Your task to perform on an android device: Search for pizza restaurants on Maps Image 0: 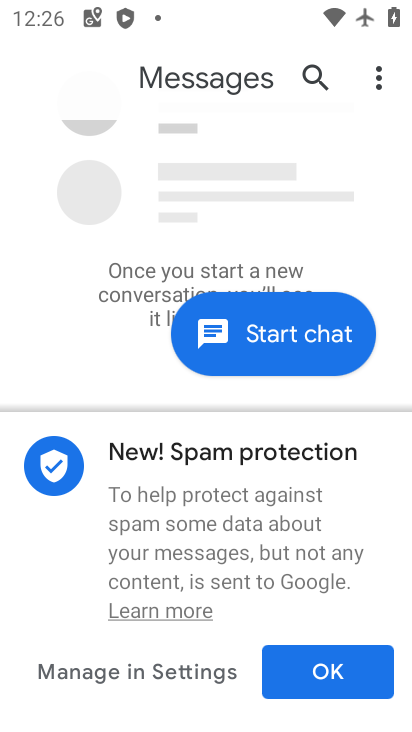
Step 0: press home button
Your task to perform on an android device: Search for pizza restaurants on Maps Image 1: 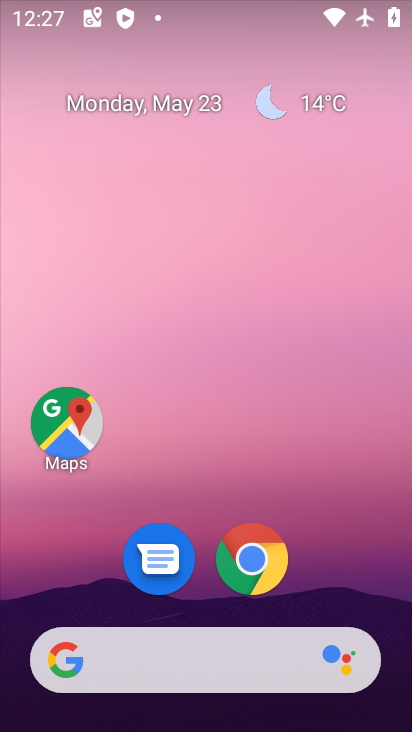
Step 1: click (69, 427)
Your task to perform on an android device: Search for pizza restaurants on Maps Image 2: 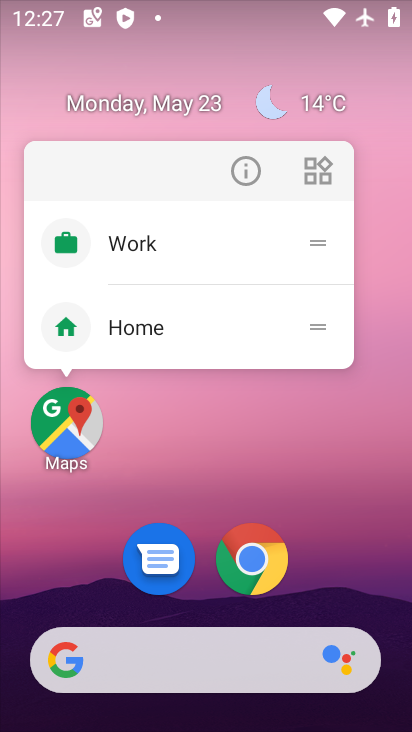
Step 2: click (71, 430)
Your task to perform on an android device: Search for pizza restaurants on Maps Image 3: 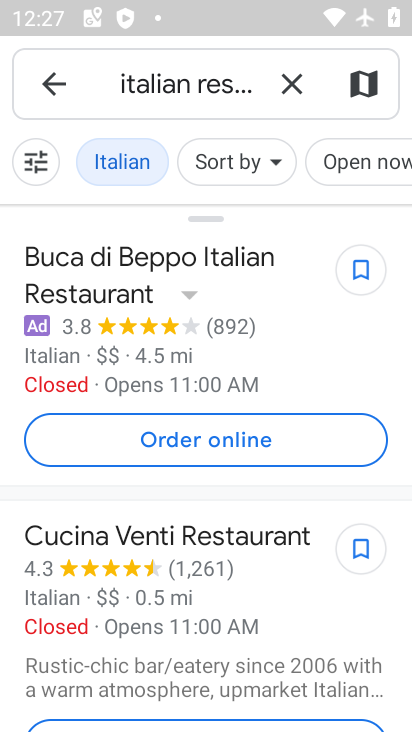
Step 3: click (286, 89)
Your task to perform on an android device: Search for pizza restaurants on Maps Image 4: 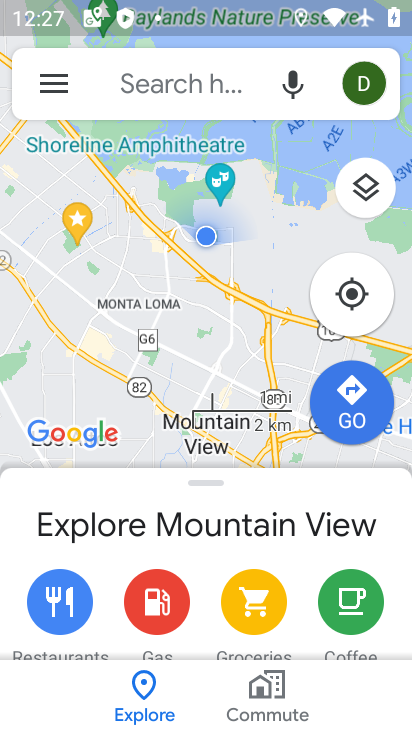
Step 4: click (119, 88)
Your task to perform on an android device: Search for pizza restaurants on Maps Image 5: 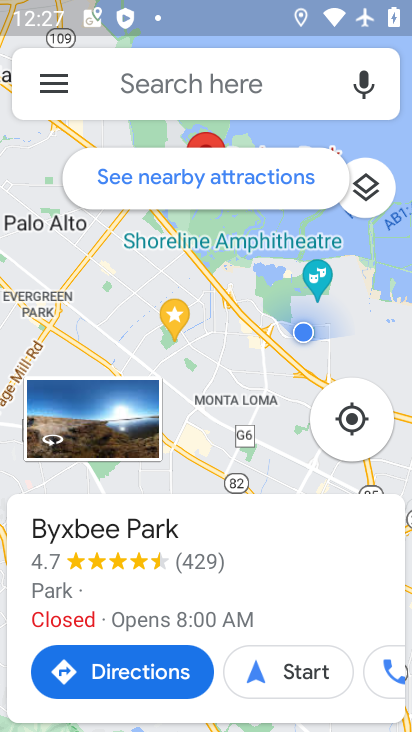
Step 5: click (128, 85)
Your task to perform on an android device: Search for pizza restaurants on Maps Image 6: 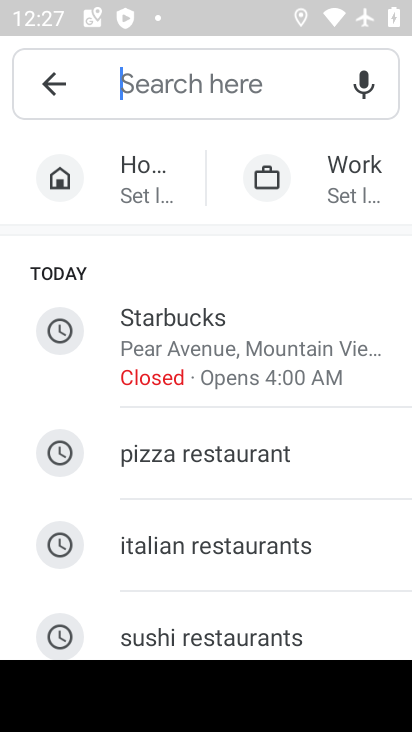
Step 6: type "pizza restaurants"
Your task to perform on an android device: Search for pizza restaurants on Maps Image 7: 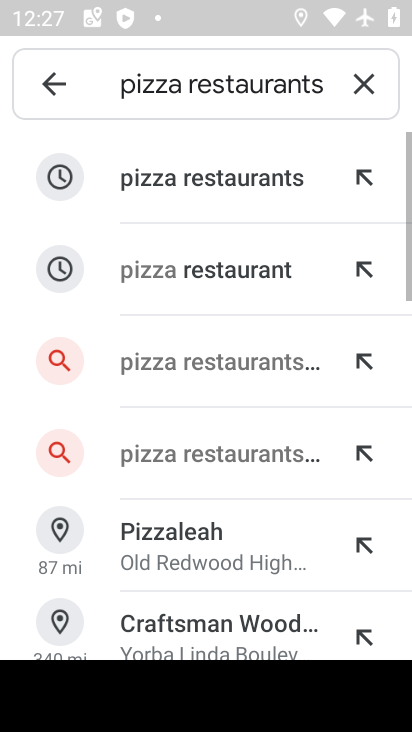
Step 7: click (208, 184)
Your task to perform on an android device: Search for pizza restaurants on Maps Image 8: 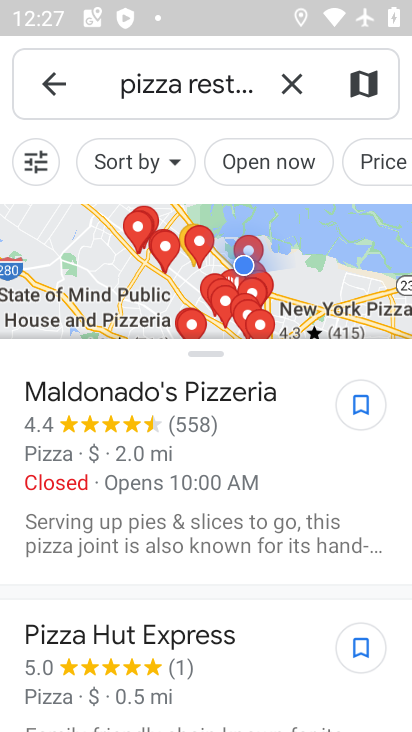
Step 8: task complete